Your task to perform on an android device: toggle data saver in the chrome app Image 0: 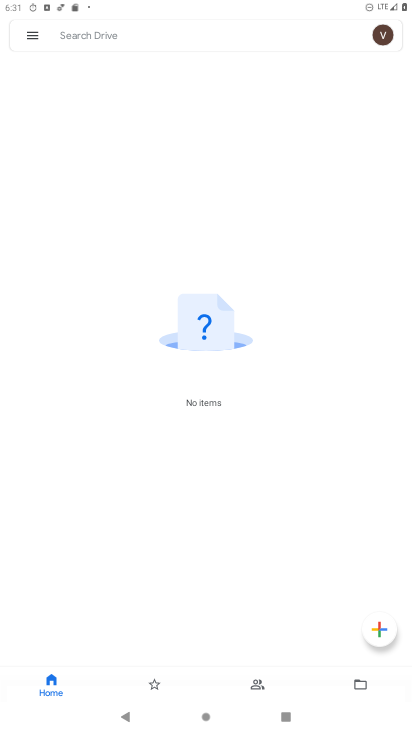
Step 0: press home button
Your task to perform on an android device: toggle data saver in the chrome app Image 1: 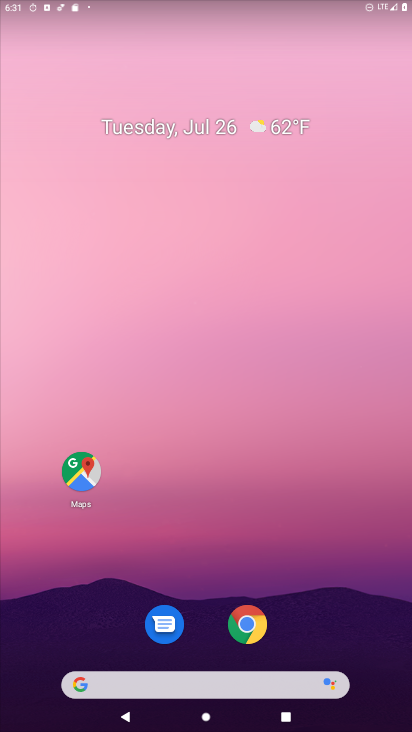
Step 1: drag from (250, 690) to (409, 412)
Your task to perform on an android device: toggle data saver in the chrome app Image 2: 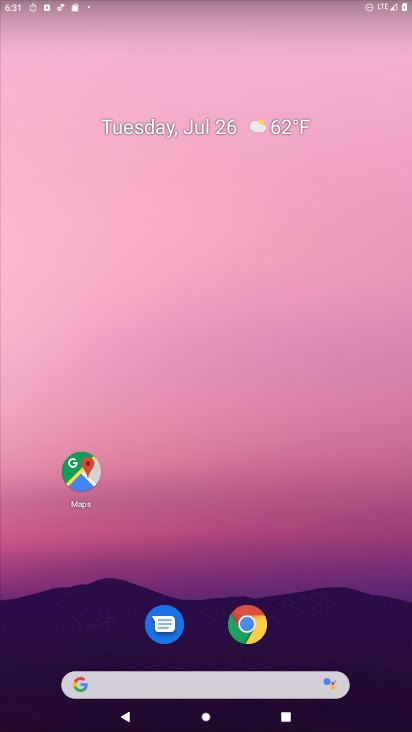
Step 2: click (248, 364)
Your task to perform on an android device: toggle data saver in the chrome app Image 3: 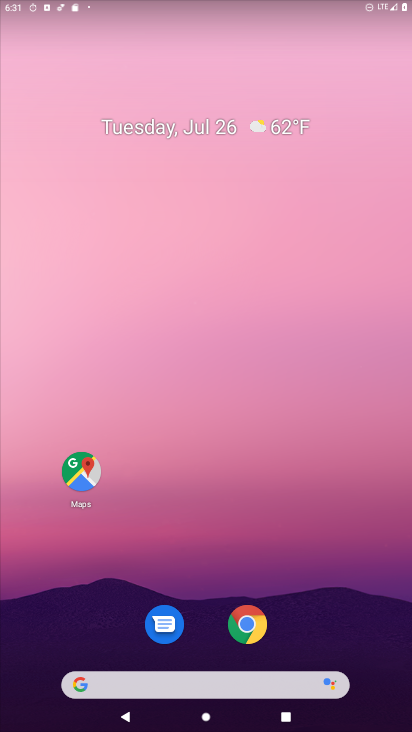
Step 3: drag from (261, 650) to (336, 28)
Your task to perform on an android device: toggle data saver in the chrome app Image 4: 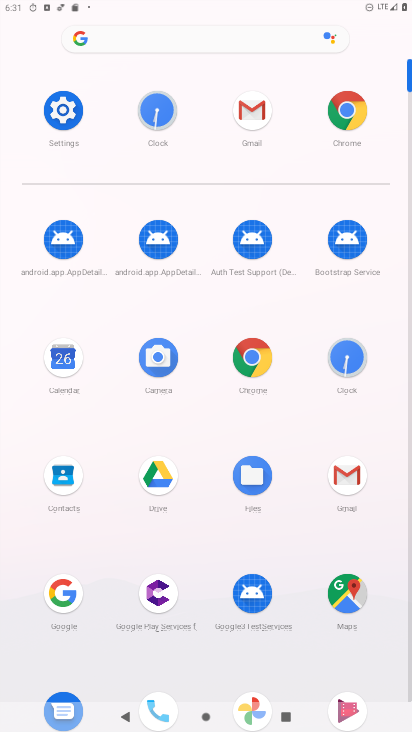
Step 4: click (261, 352)
Your task to perform on an android device: toggle data saver in the chrome app Image 5: 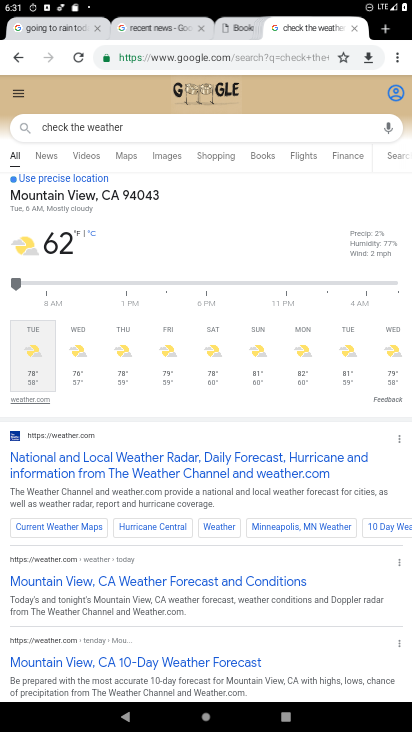
Step 5: click (397, 60)
Your task to perform on an android device: toggle data saver in the chrome app Image 6: 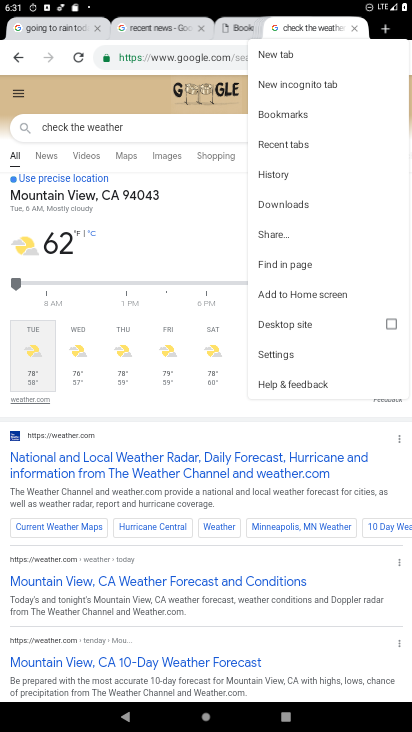
Step 6: click (262, 348)
Your task to perform on an android device: toggle data saver in the chrome app Image 7: 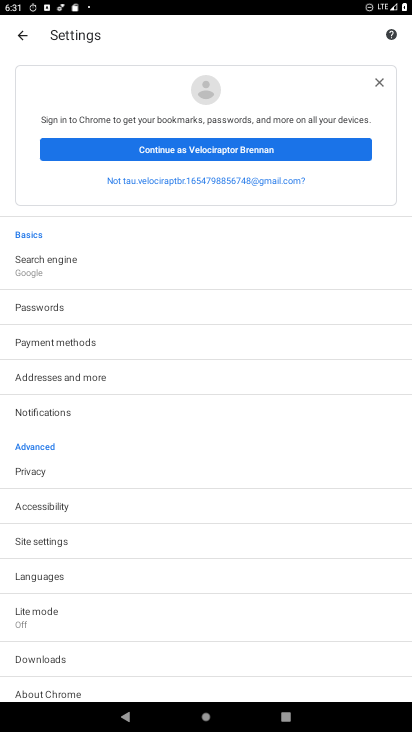
Step 7: click (53, 611)
Your task to perform on an android device: toggle data saver in the chrome app Image 8: 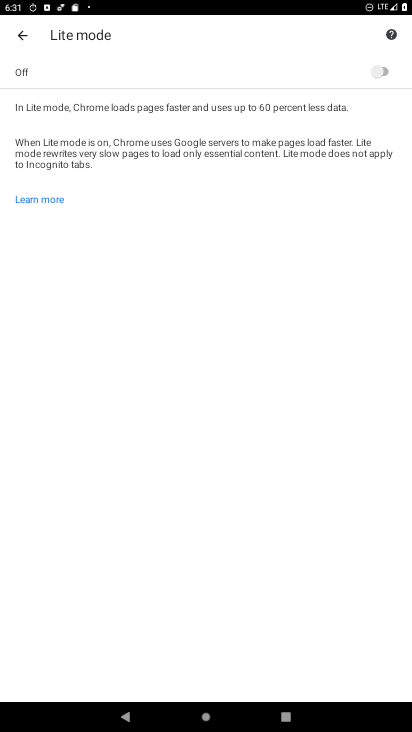
Step 8: click (388, 73)
Your task to perform on an android device: toggle data saver in the chrome app Image 9: 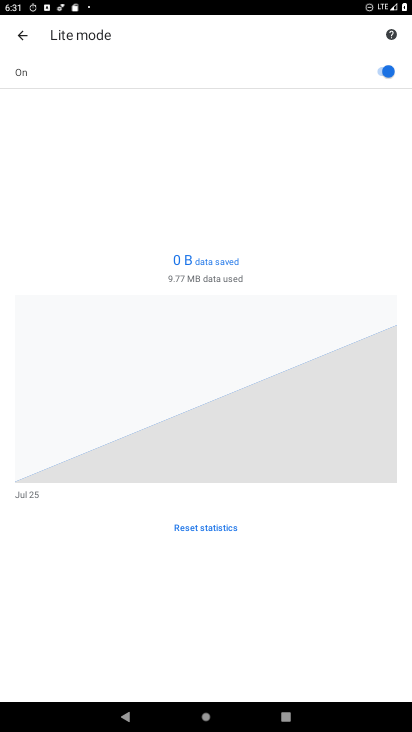
Step 9: task complete